Your task to perform on an android device: Go to Maps Image 0: 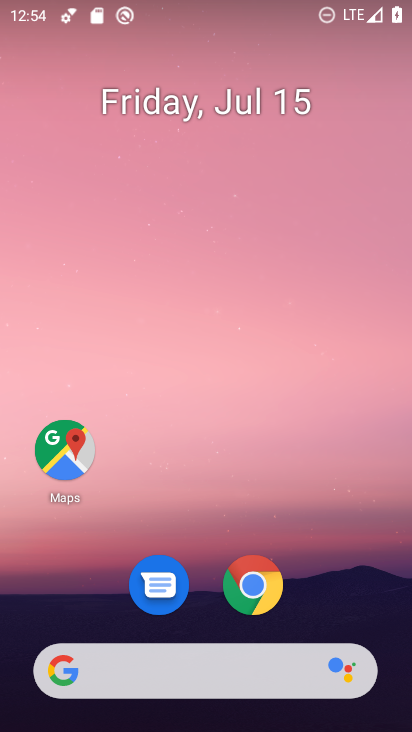
Step 0: click (61, 441)
Your task to perform on an android device: Go to Maps Image 1: 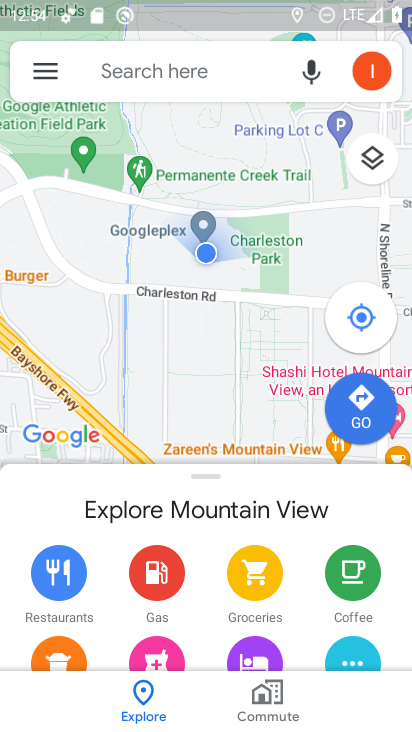
Step 1: task complete